Your task to perform on an android device: turn off wifi Image 0: 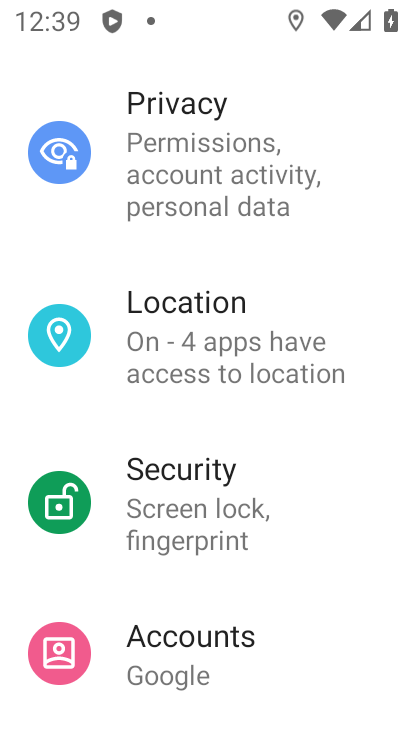
Step 0: press home button
Your task to perform on an android device: turn off wifi Image 1: 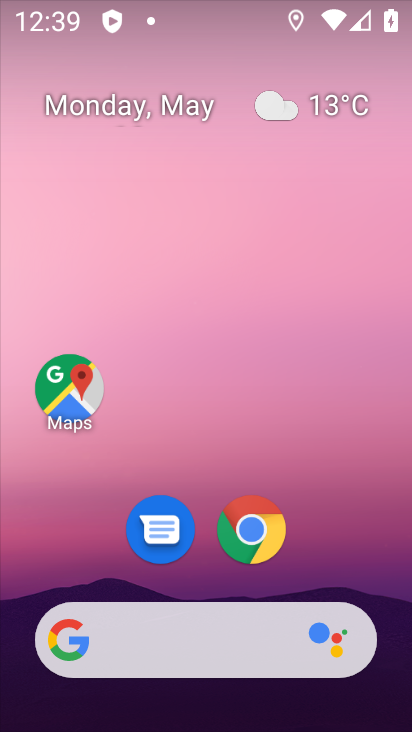
Step 1: drag from (157, 587) to (213, 148)
Your task to perform on an android device: turn off wifi Image 2: 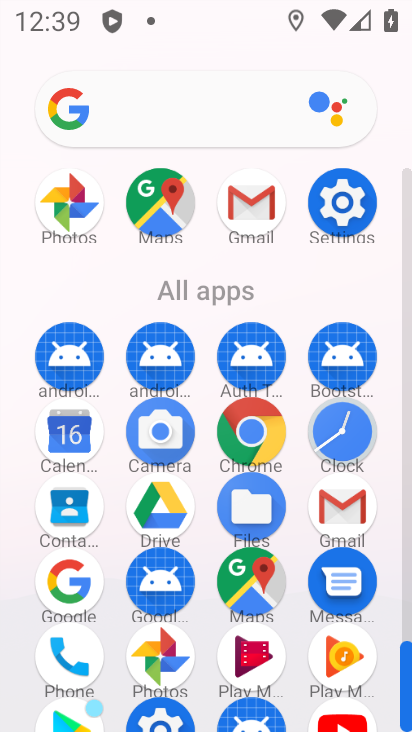
Step 2: drag from (183, 537) to (235, 322)
Your task to perform on an android device: turn off wifi Image 3: 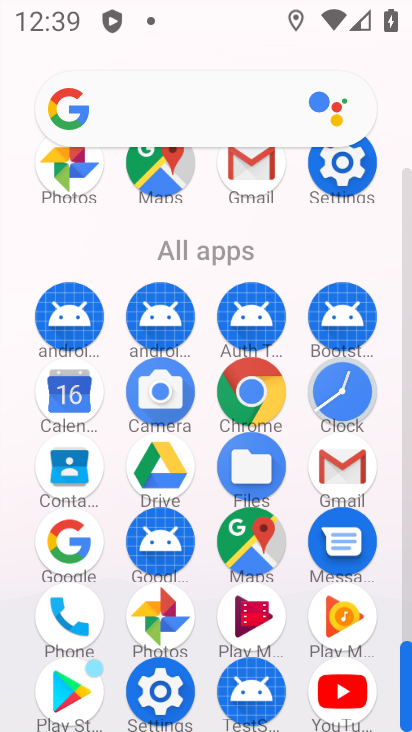
Step 3: click (343, 177)
Your task to perform on an android device: turn off wifi Image 4: 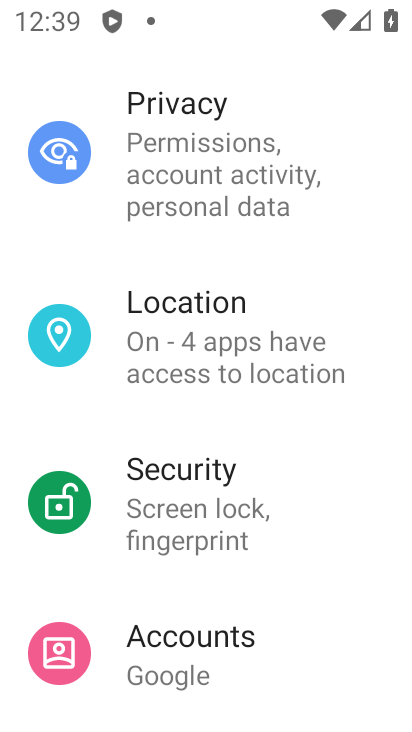
Step 4: drag from (301, 195) to (271, 641)
Your task to perform on an android device: turn off wifi Image 5: 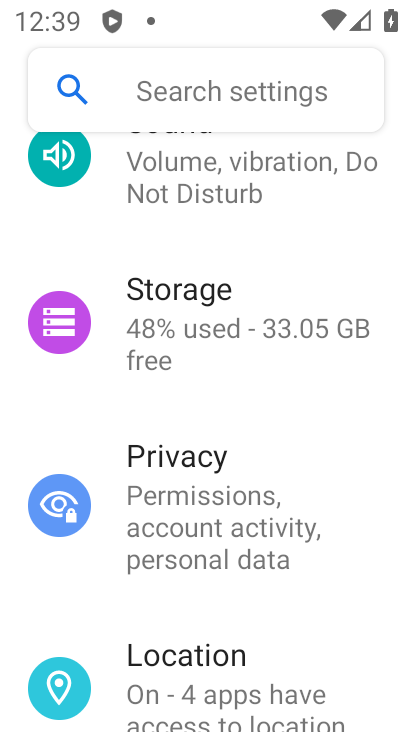
Step 5: drag from (267, 272) to (243, 659)
Your task to perform on an android device: turn off wifi Image 6: 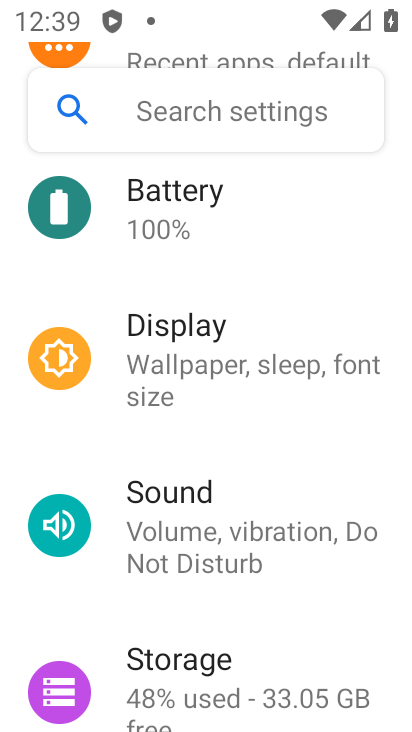
Step 6: drag from (216, 244) to (230, 589)
Your task to perform on an android device: turn off wifi Image 7: 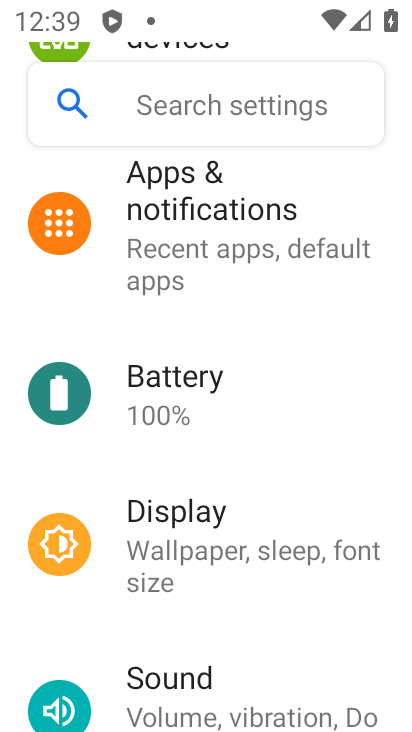
Step 7: drag from (228, 266) to (230, 642)
Your task to perform on an android device: turn off wifi Image 8: 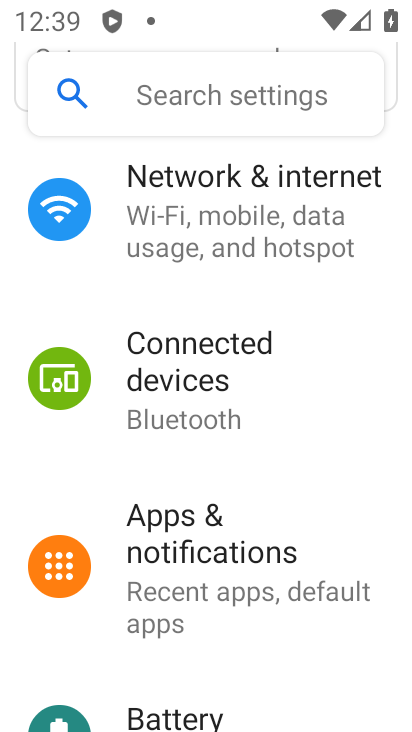
Step 8: drag from (242, 258) to (238, 593)
Your task to perform on an android device: turn off wifi Image 9: 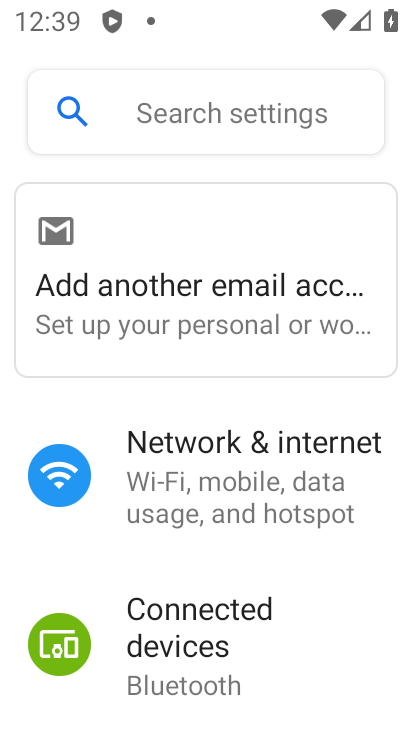
Step 9: click (236, 476)
Your task to perform on an android device: turn off wifi Image 10: 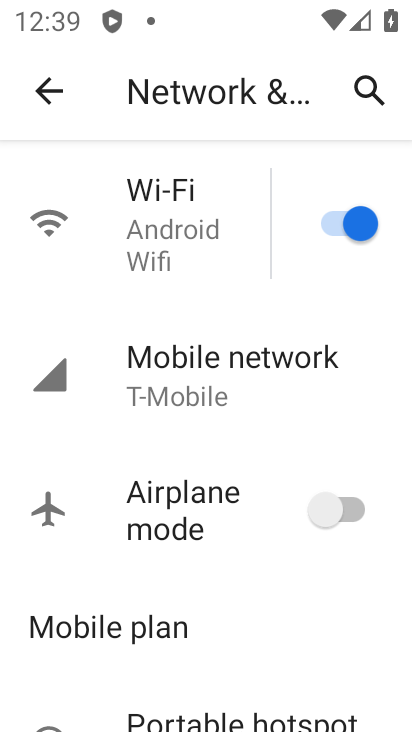
Step 10: click (346, 228)
Your task to perform on an android device: turn off wifi Image 11: 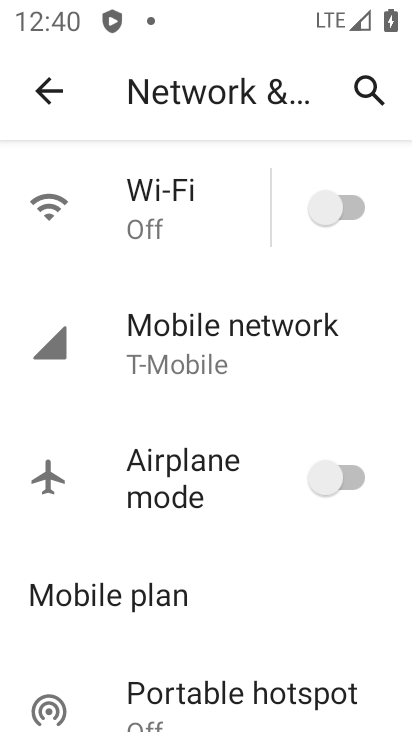
Step 11: task complete